Your task to perform on an android device: Go to ESPN.com Image 0: 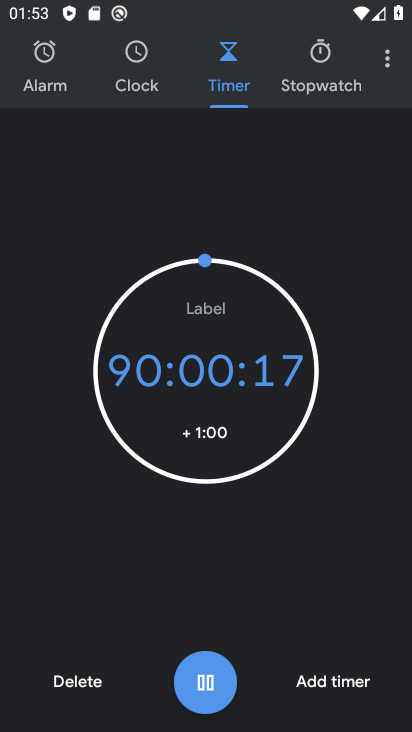
Step 0: press home button
Your task to perform on an android device: Go to ESPN.com Image 1: 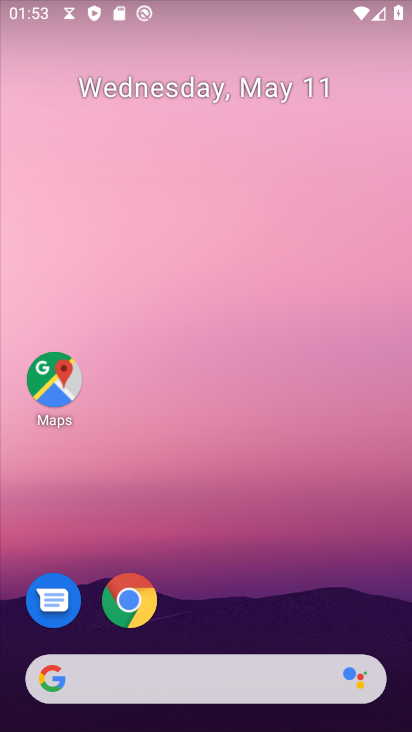
Step 1: drag from (199, 622) to (246, 331)
Your task to perform on an android device: Go to ESPN.com Image 2: 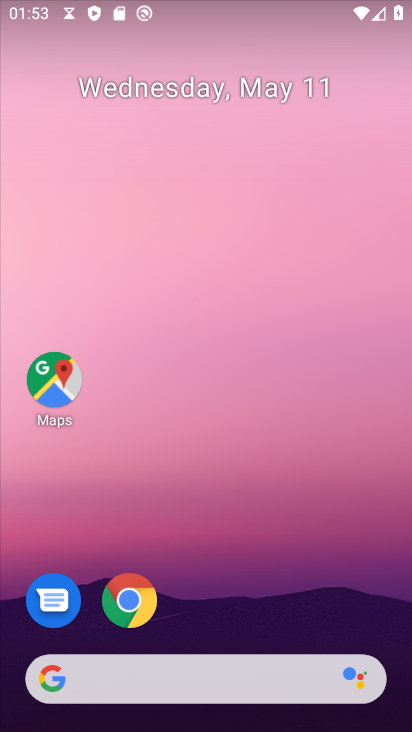
Step 2: drag from (203, 593) to (226, 211)
Your task to perform on an android device: Go to ESPN.com Image 3: 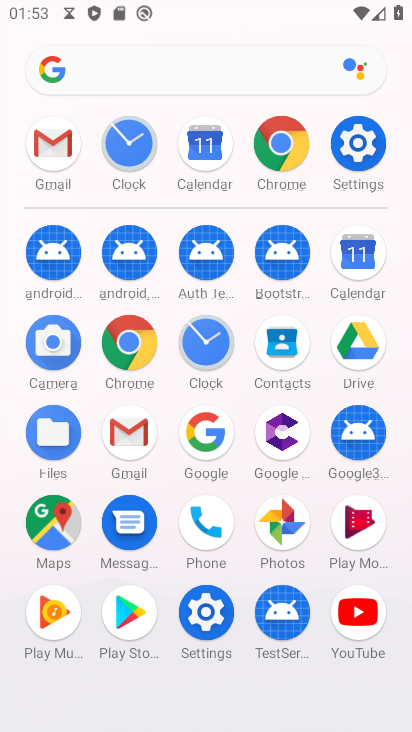
Step 3: click (285, 150)
Your task to perform on an android device: Go to ESPN.com Image 4: 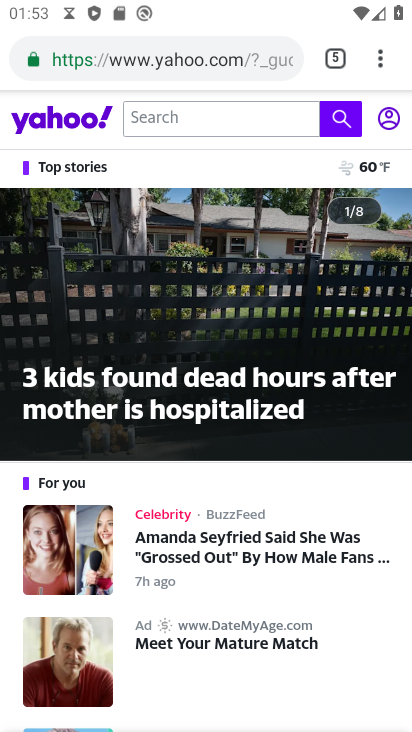
Step 4: click (371, 59)
Your task to perform on an android device: Go to ESPN.com Image 5: 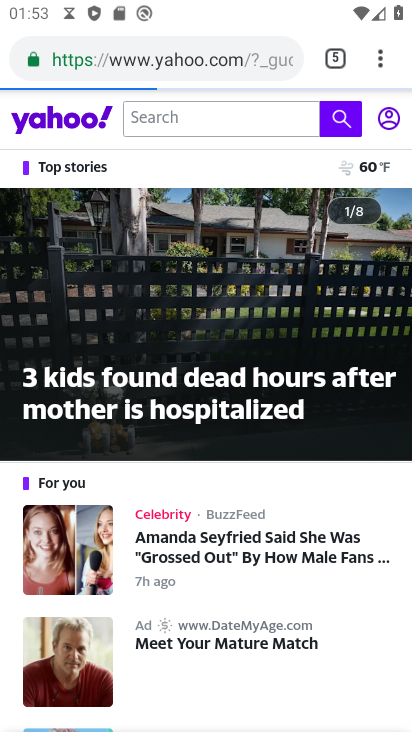
Step 5: click (349, 50)
Your task to perform on an android device: Go to ESPN.com Image 6: 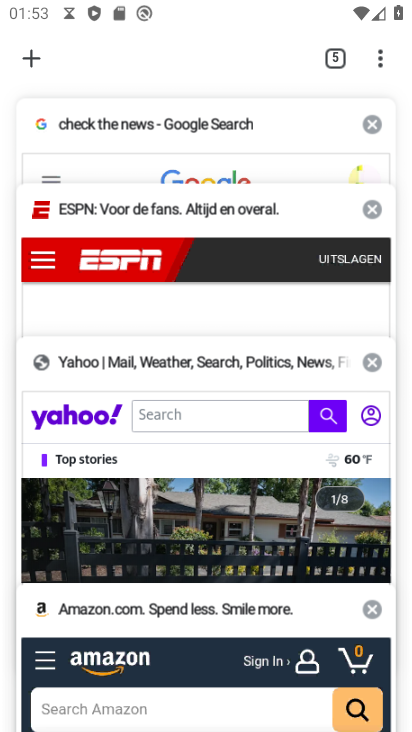
Step 6: click (144, 274)
Your task to perform on an android device: Go to ESPN.com Image 7: 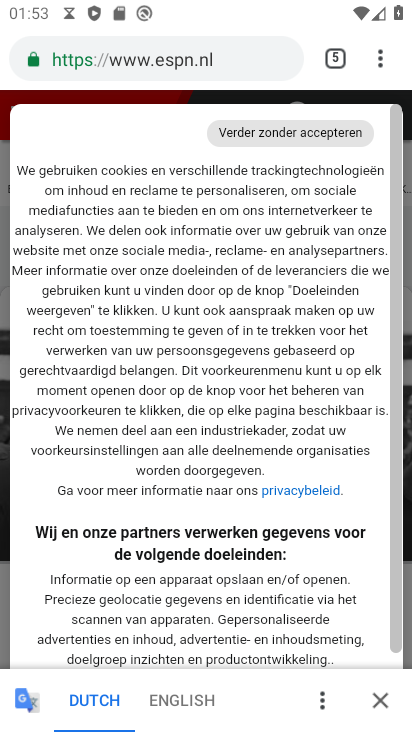
Step 7: task complete